Your task to perform on an android device: toggle airplane mode Image 0: 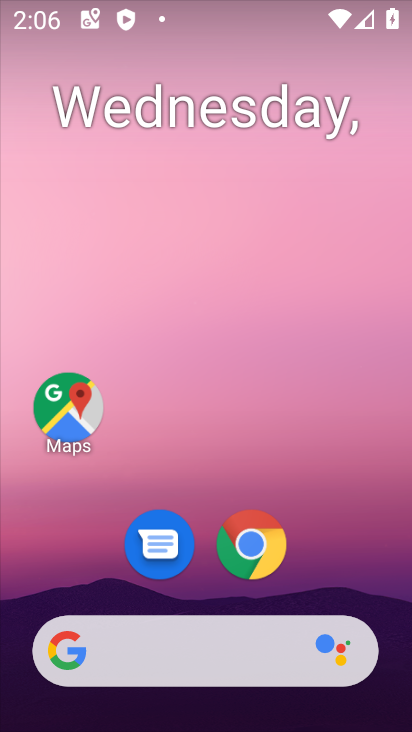
Step 0: drag from (338, 539) to (410, 648)
Your task to perform on an android device: toggle airplane mode Image 1: 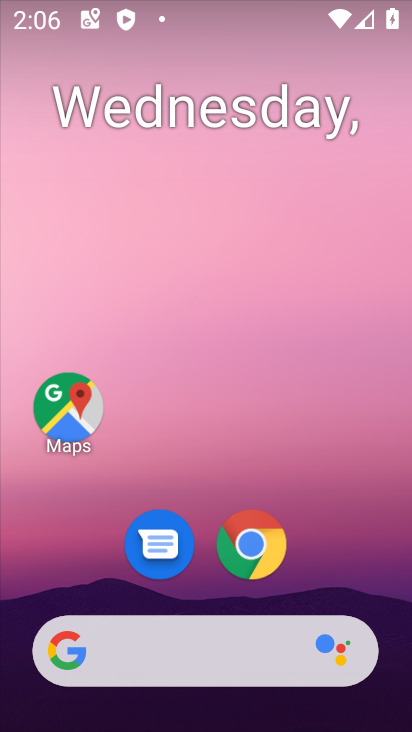
Step 1: click (345, 201)
Your task to perform on an android device: toggle airplane mode Image 2: 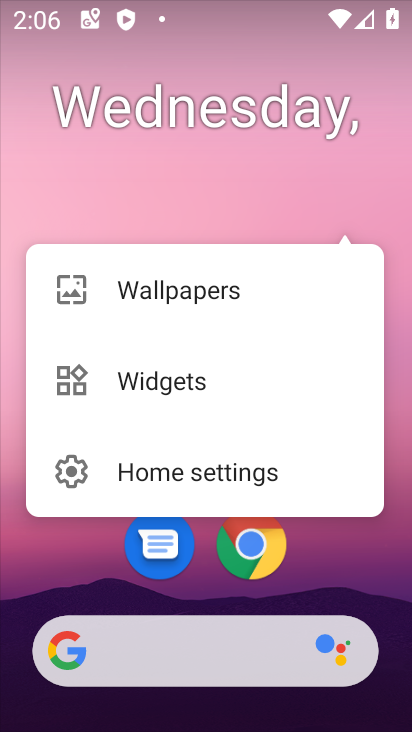
Step 2: drag from (302, 547) to (342, 171)
Your task to perform on an android device: toggle airplane mode Image 3: 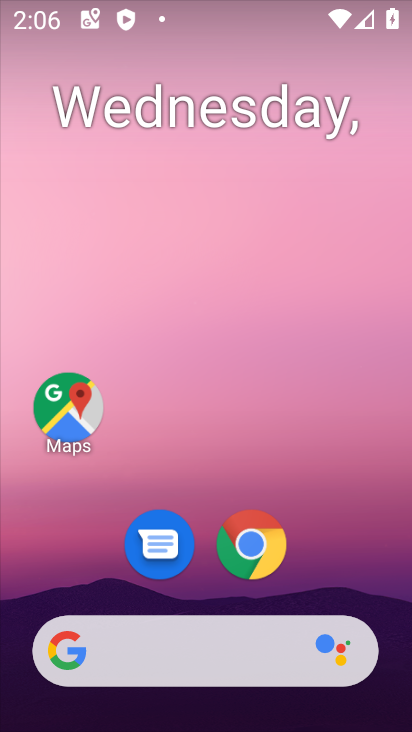
Step 3: drag from (347, 571) to (411, 137)
Your task to perform on an android device: toggle airplane mode Image 4: 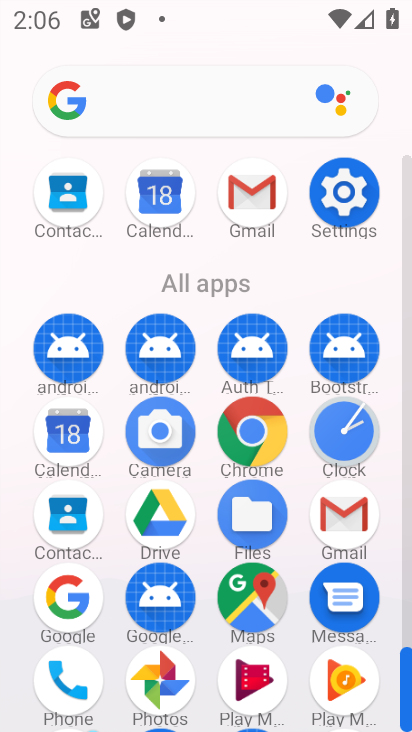
Step 4: click (358, 200)
Your task to perform on an android device: toggle airplane mode Image 5: 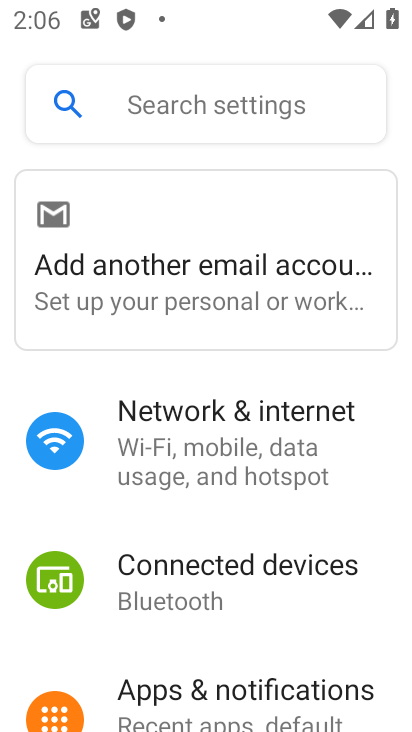
Step 5: click (289, 230)
Your task to perform on an android device: toggle airplane mode Image 6: 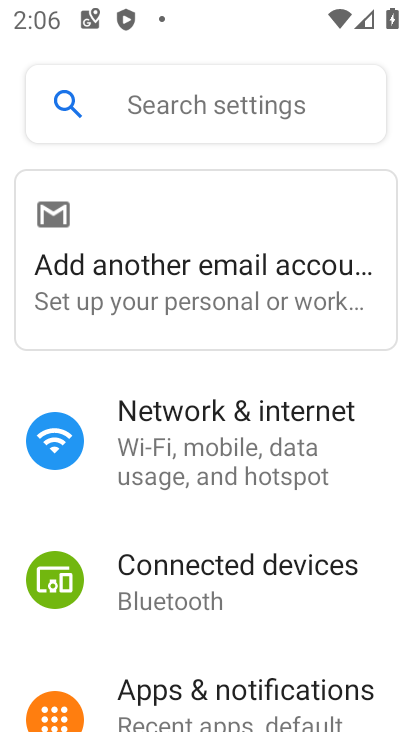
Step 6: click (201, 409)
Your task to perform on an android device: toggle airplane mode Image 7: 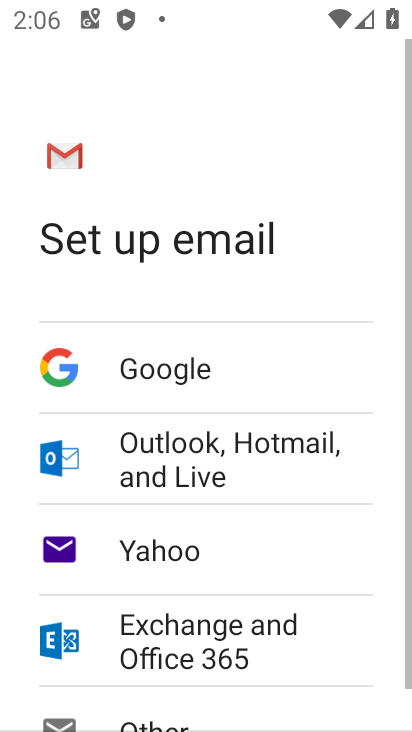
Step 7: press back button
Your task to perform on an android device: toggle airplane mode Image 8: 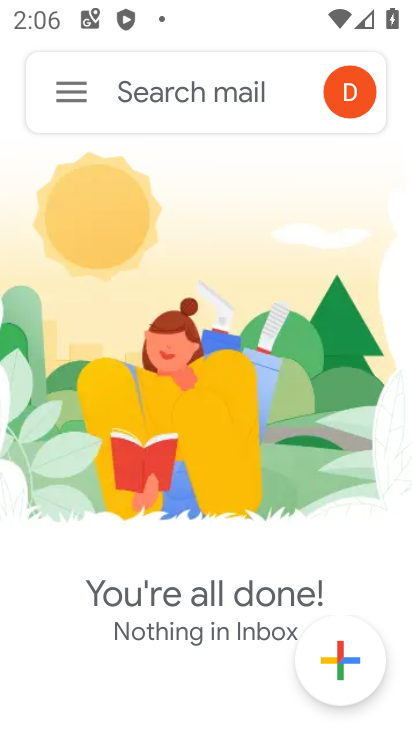
Step 8: press back button
Your task to perform on an android device: toggle airplane mode Image 9: 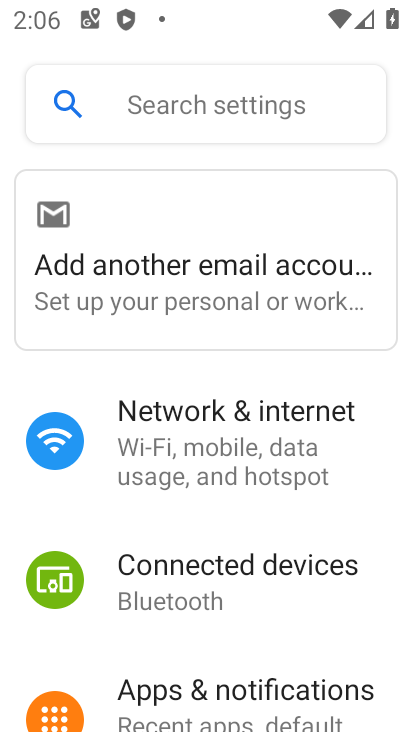
Step 9: click (269, 449)
Your task to perform on an android device: toggle airplane mode Image 10: 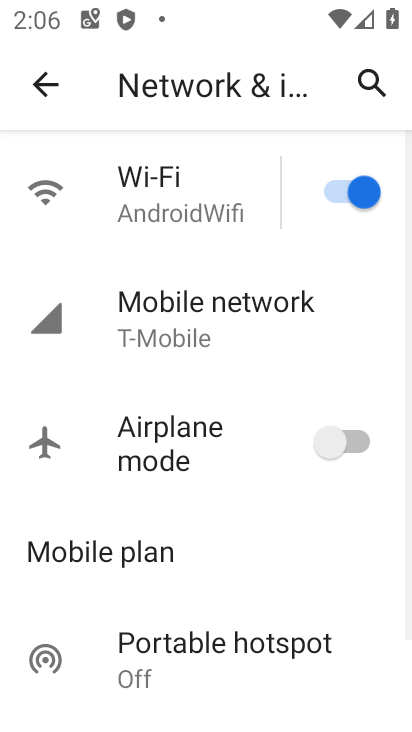
Step 10: click (343, 440)
Your task to perform on an android device: toggle airplane mode Image 11: 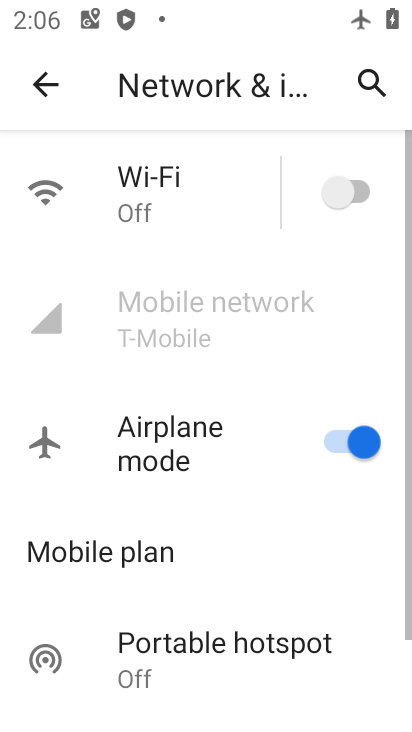
Step 11: click (359, 186)
Your task to perform on an android device: toggle airplane mode Image 12: 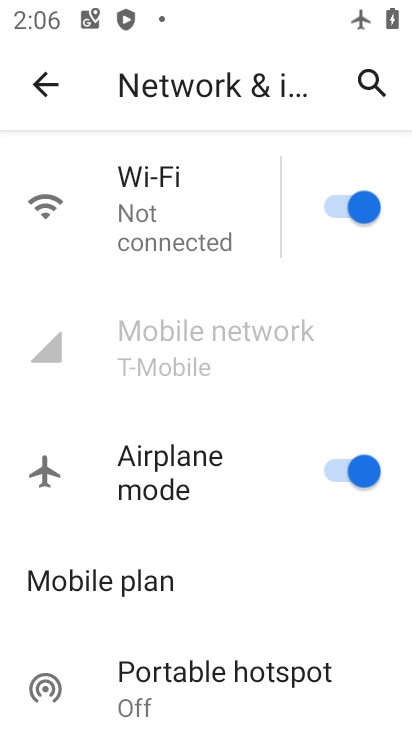
Step 12: task complete